Your task to perform on an android device: uninstall "Microsoft Excel" Image 0: 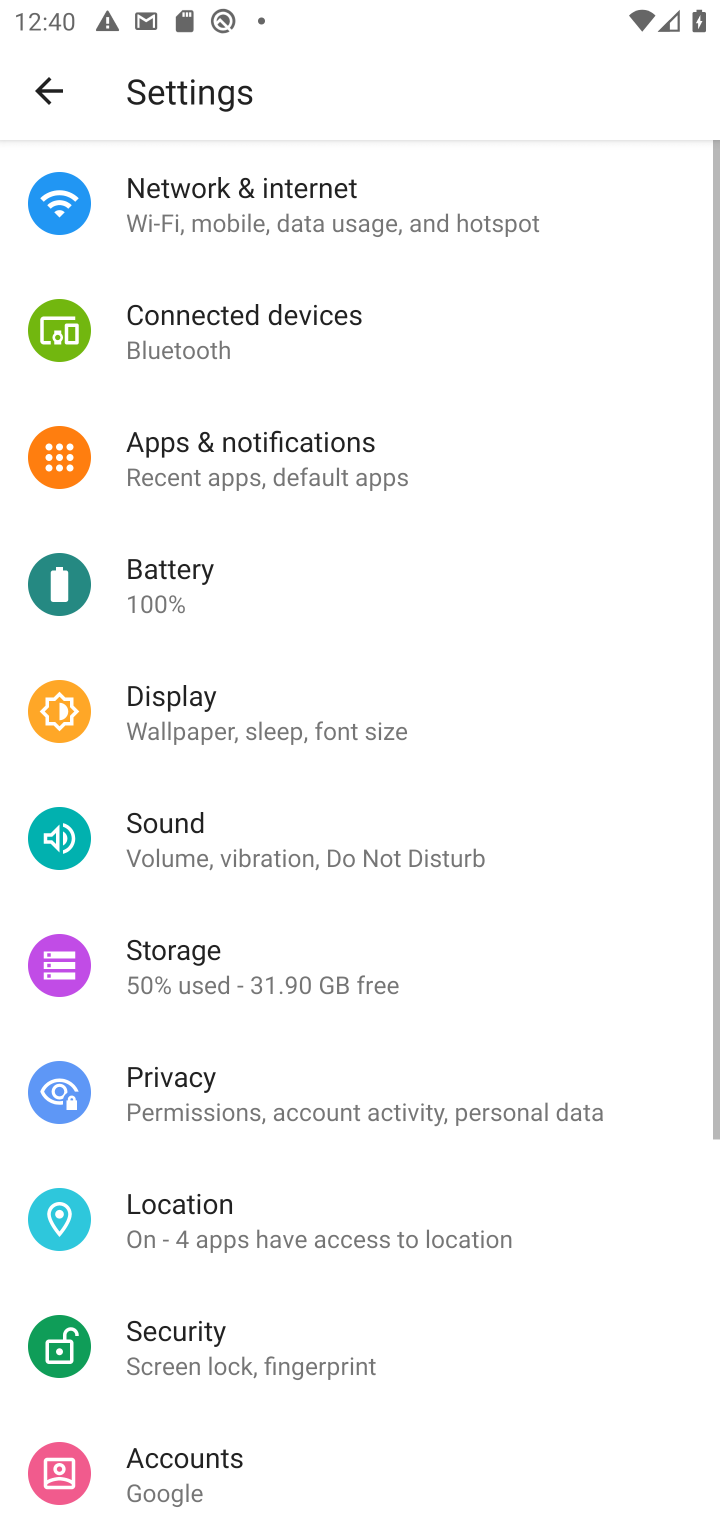
Step 0: press home button
Your task to perform on an android device: uninstall "Microsoft Excel" Image 1: 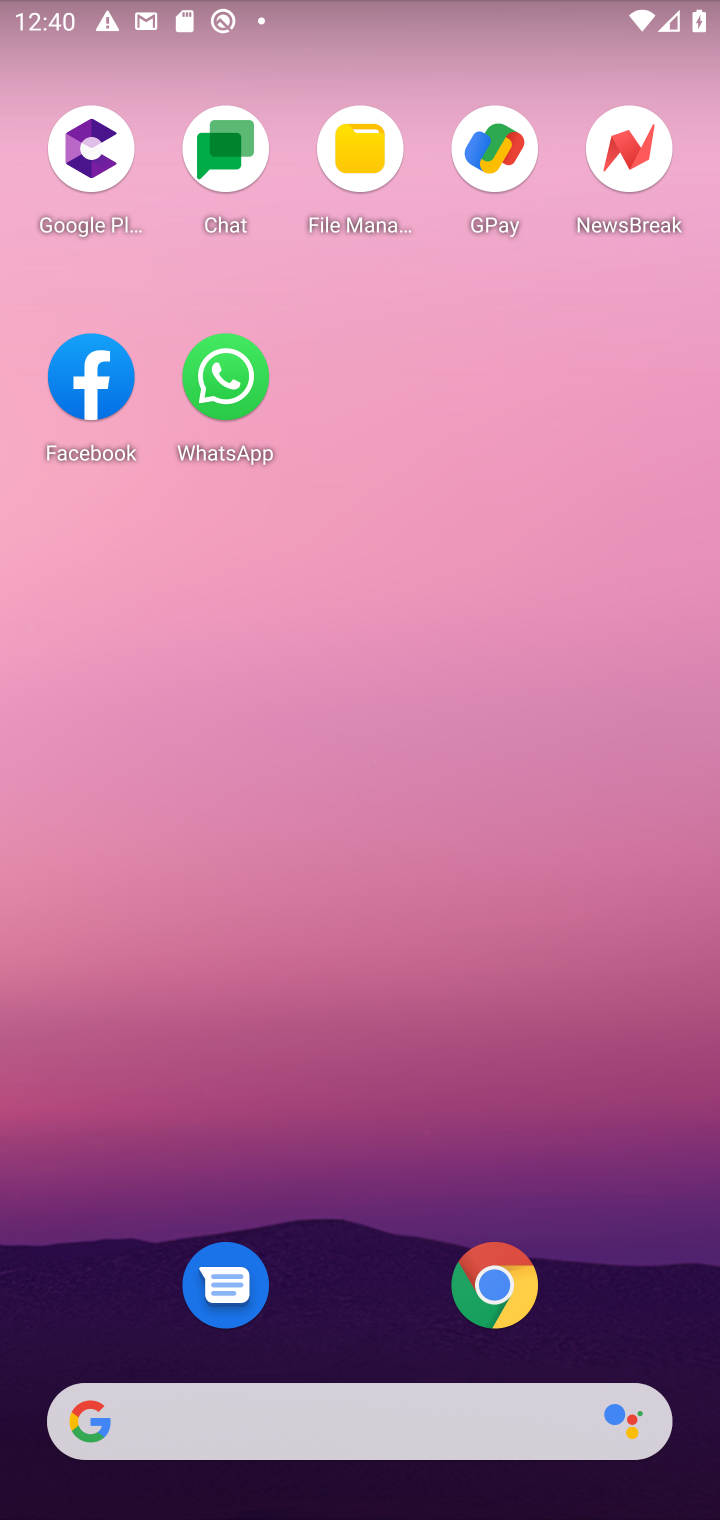
Step 1: drag from (318, 1230) to (327, 55)
Your task to perform on an android device: uninstall "Microsoft Excel" Image 2: 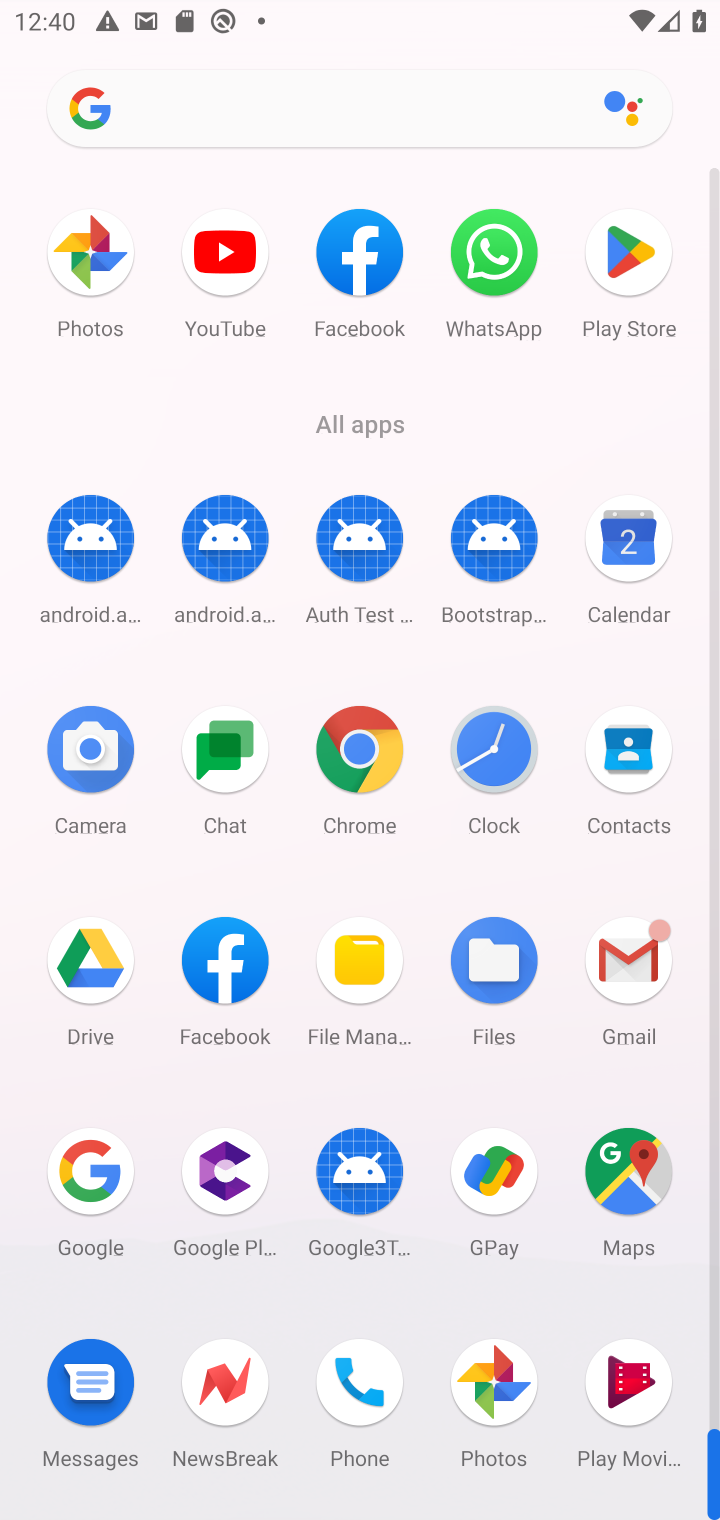
Step 2: click (633, 232)
Your task to perform on an android device: uninstall "Microsoft Excel" Image 3: 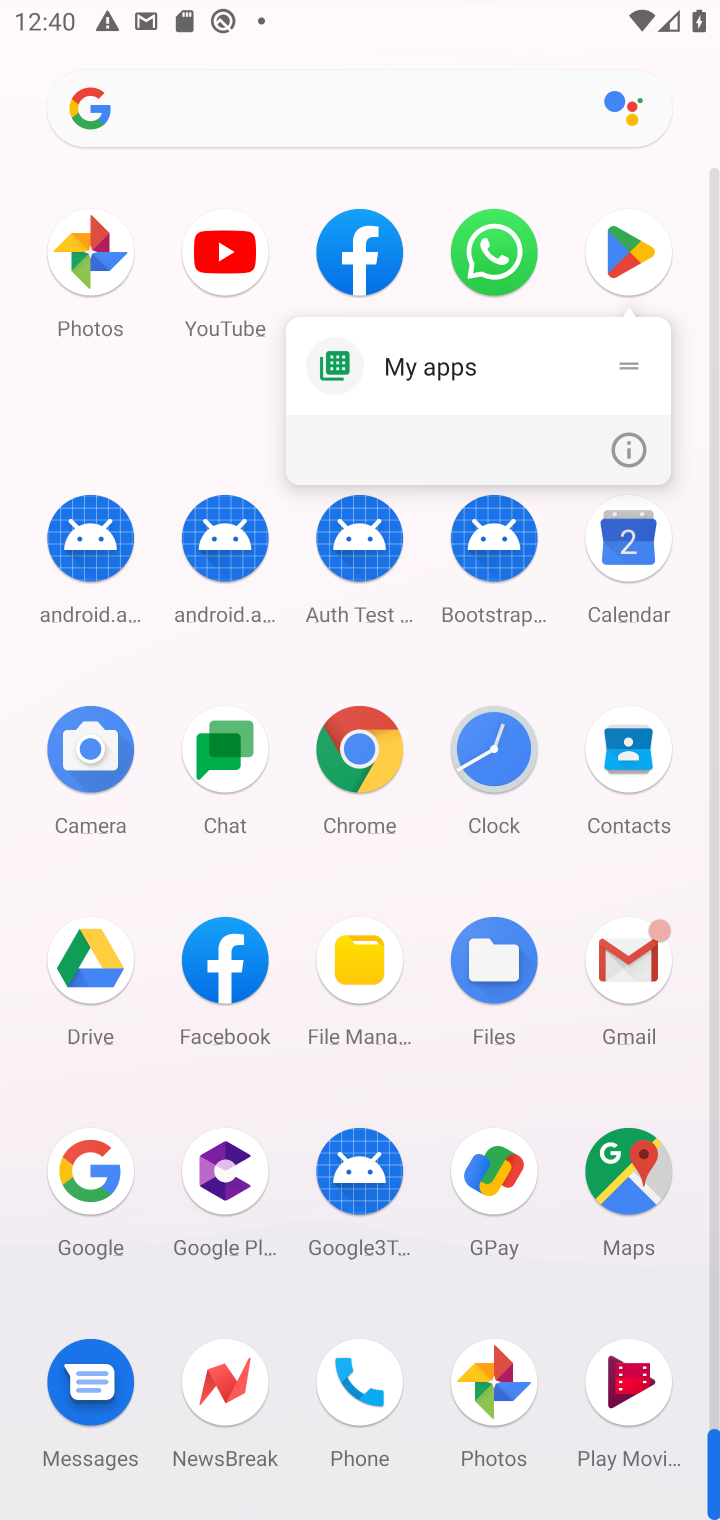
Step 3: click (637, 242)
Your task to perform on an android device: uninstall "Microsoft Excel" Image 4: 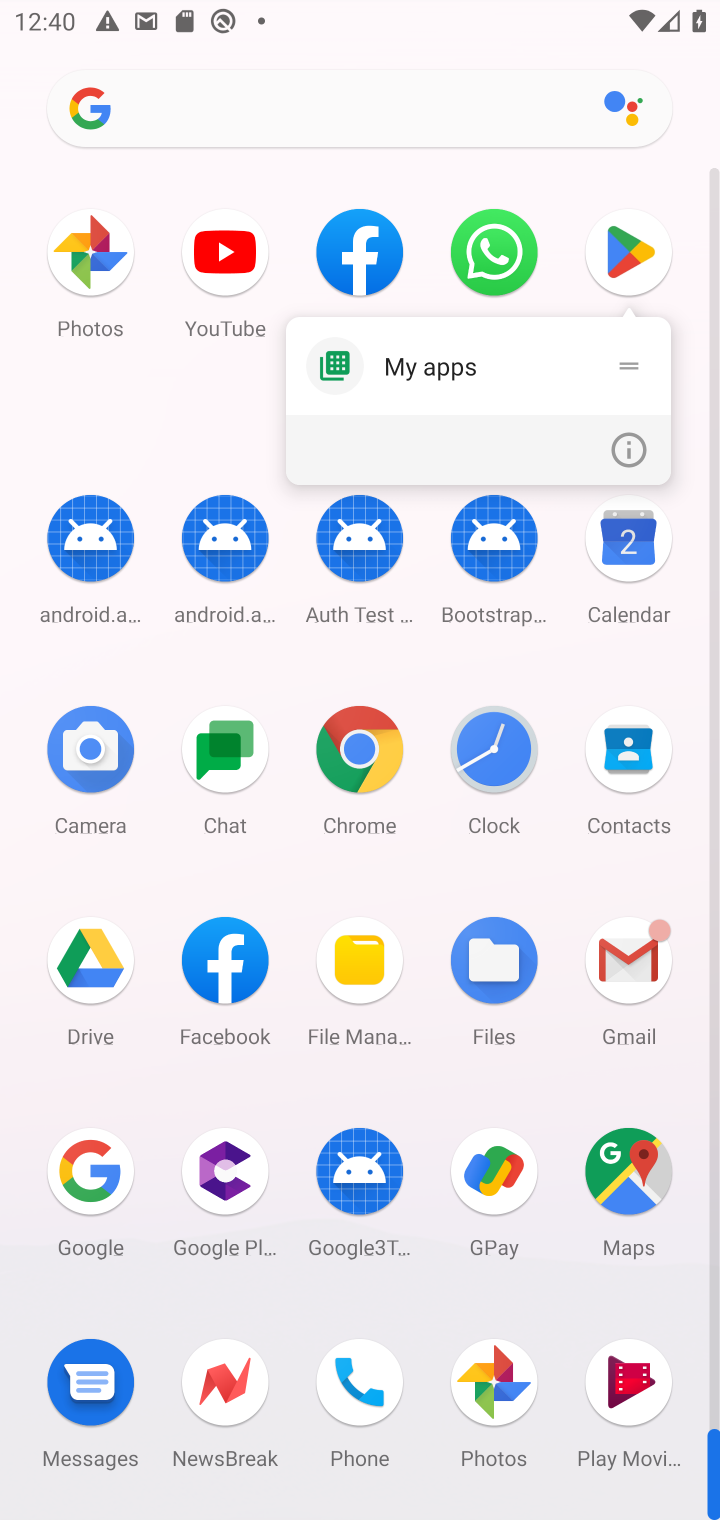
Step 4: click (637, 242)
Your task to perform on an android device: uninstall "Microsoft Excel" Image 5: 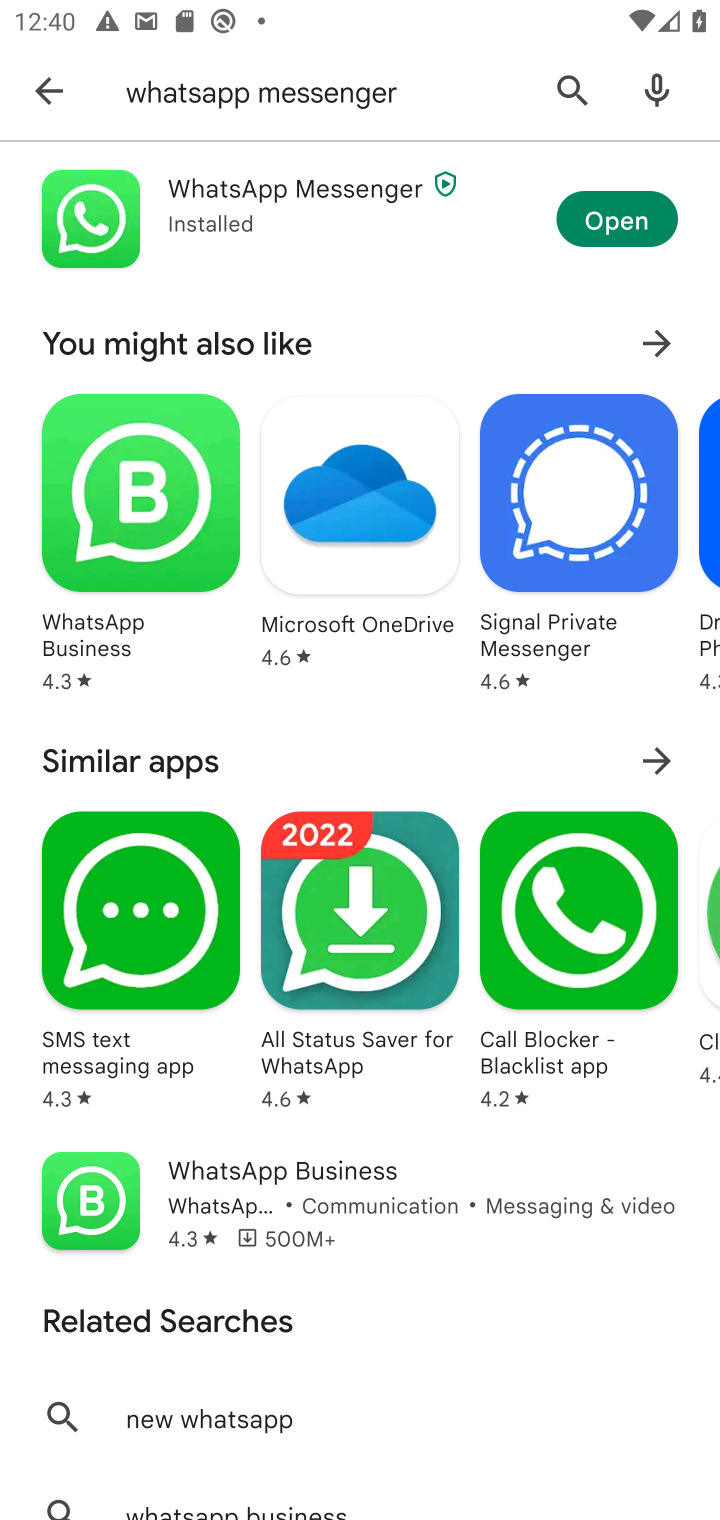
Step 5: click (42, 93)
Your task to perform on an android device: uninstall "Microsoft Excel" Image 6: 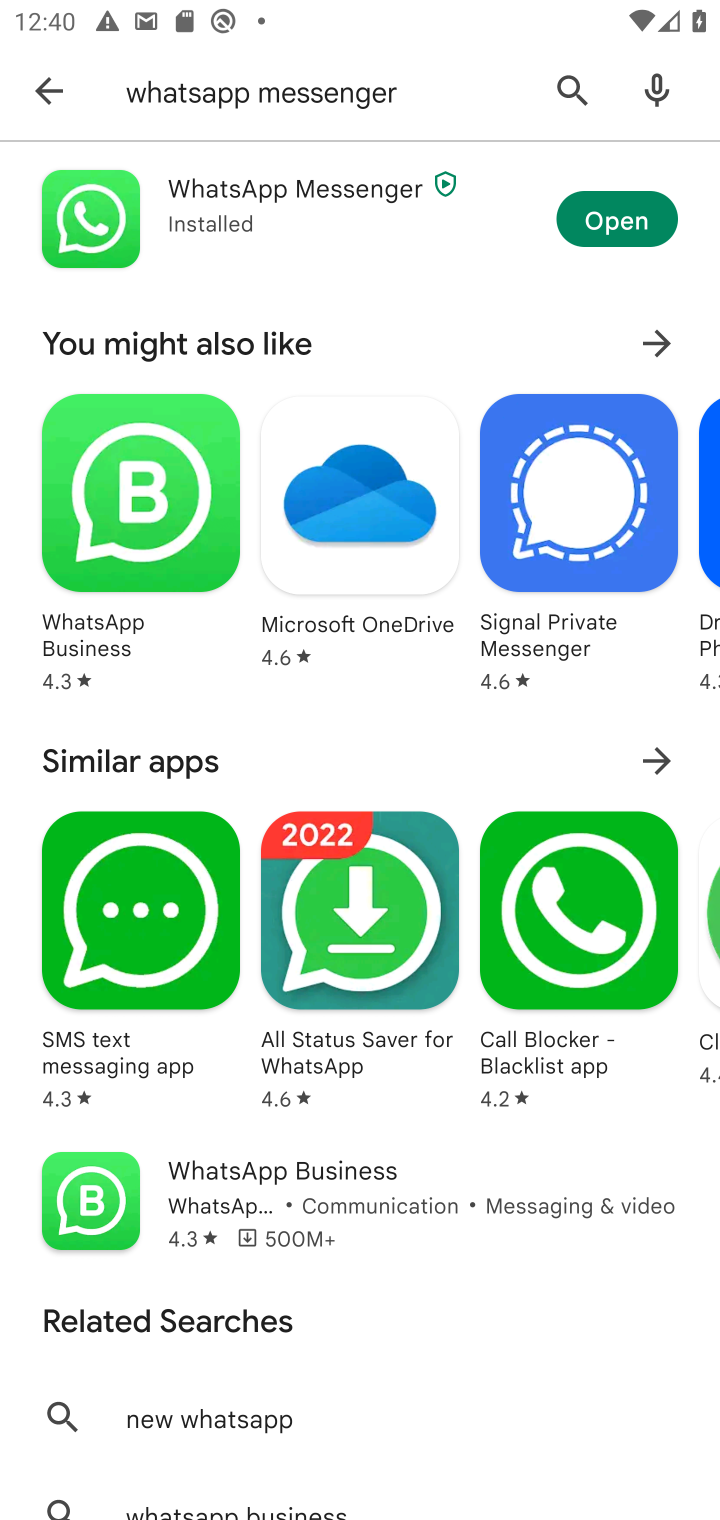
Step 6: click (564, 81)
Your task to perform on an android device: uninstall "Microsoft Excel" Image 7: 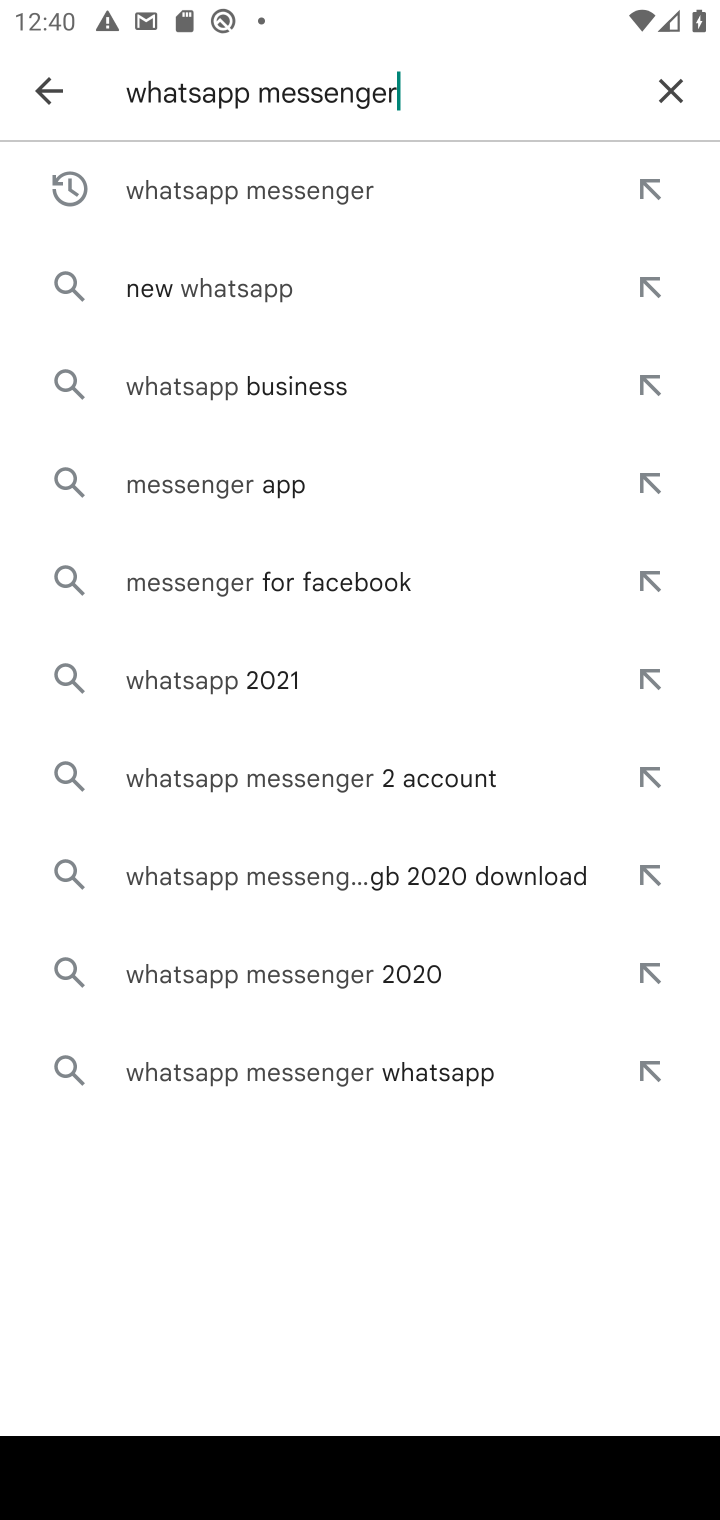
Step 7: click (673, 81)
Your task to perform on an android device: uninstall "Microsoft Excel" Image 8: 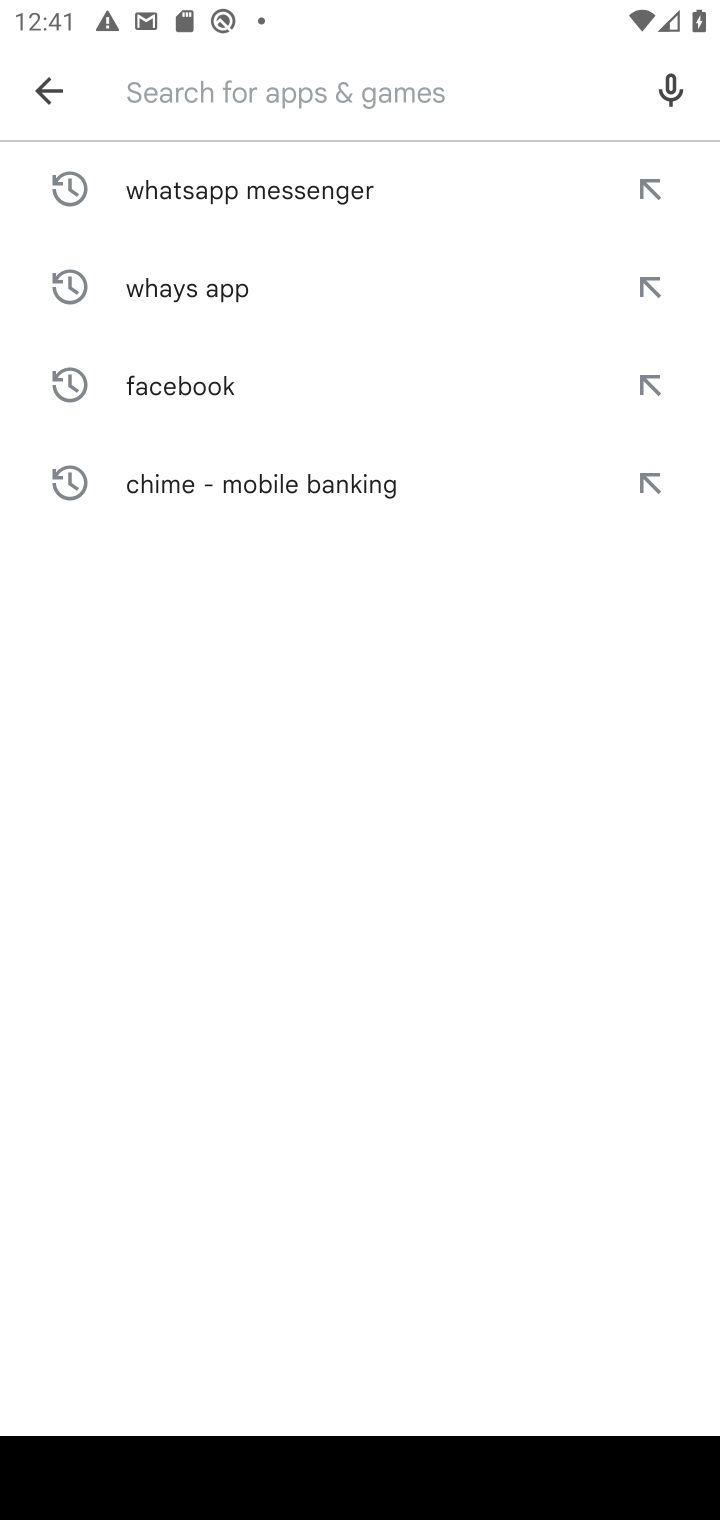
Step 8: type "Microsoft Excel""
Your task to perform on an android device: uninstall "Microsoft Excel" Image 9: 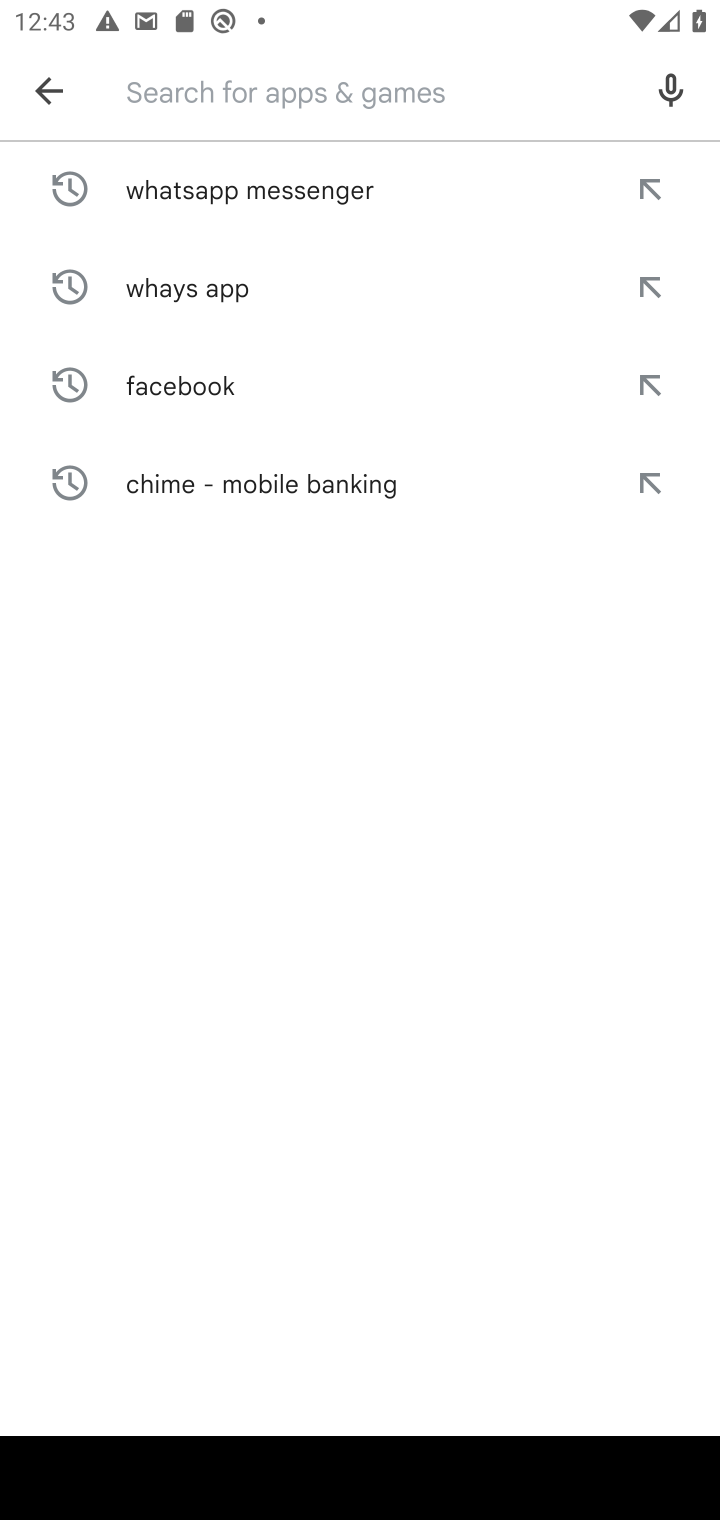
Step 9: type "Microsoft Excel"
Your task to perform on an android device: uninstall "Microsoft Excel" Image 10: 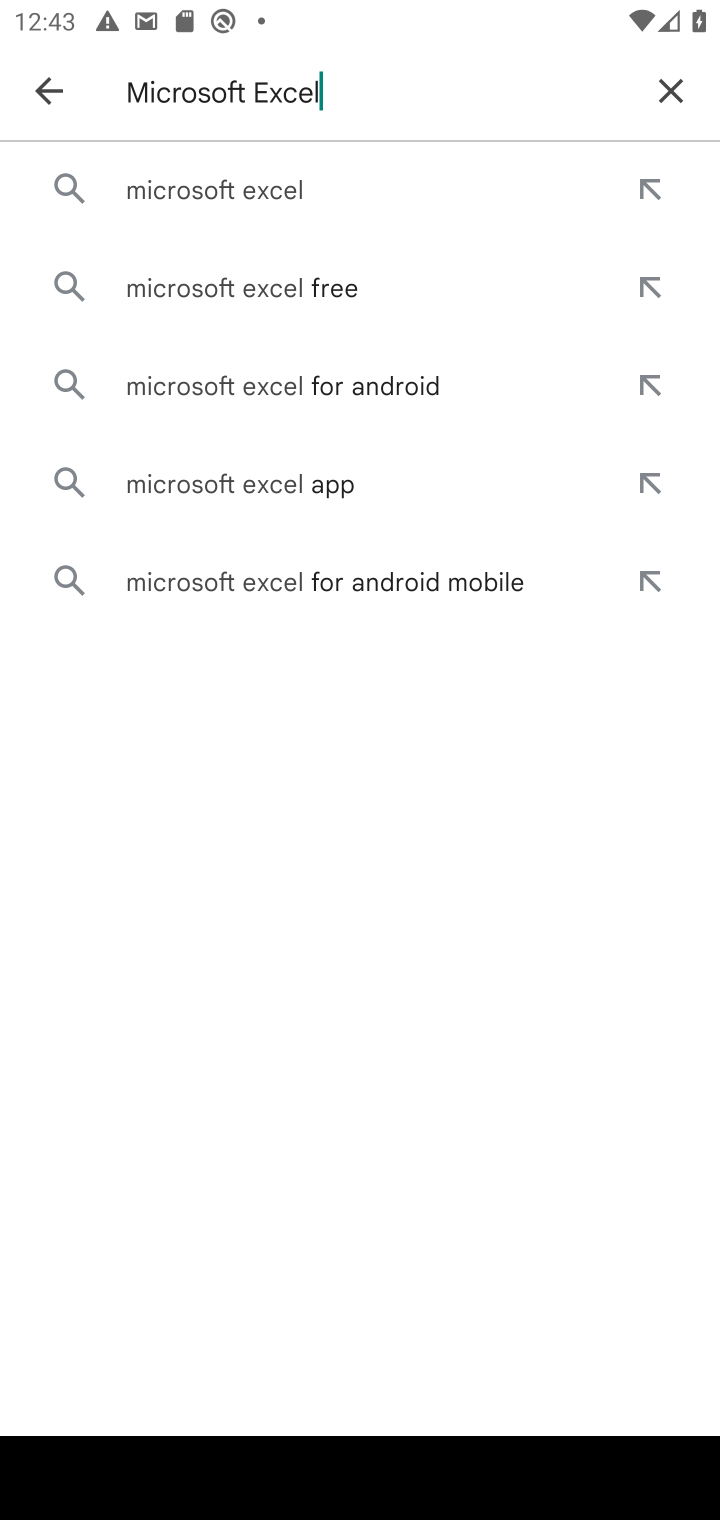
Step 10: click (259, 191)
Your task to perform on an android device: uninstall "Microsoft Excel" Image 11: 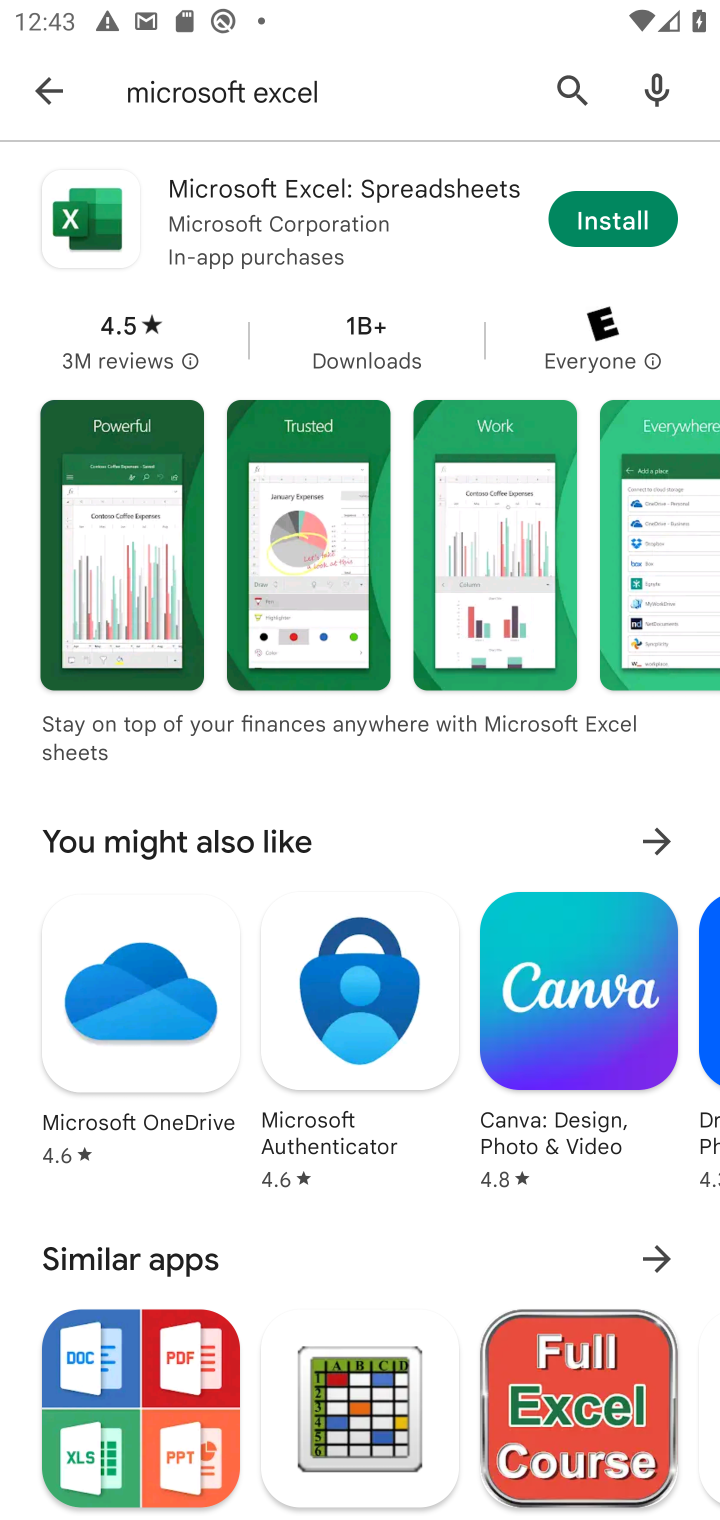
Step 11: task complete